Your task to perform on an android device: Add "amazon basics triple a" to the cart on target Image 0: 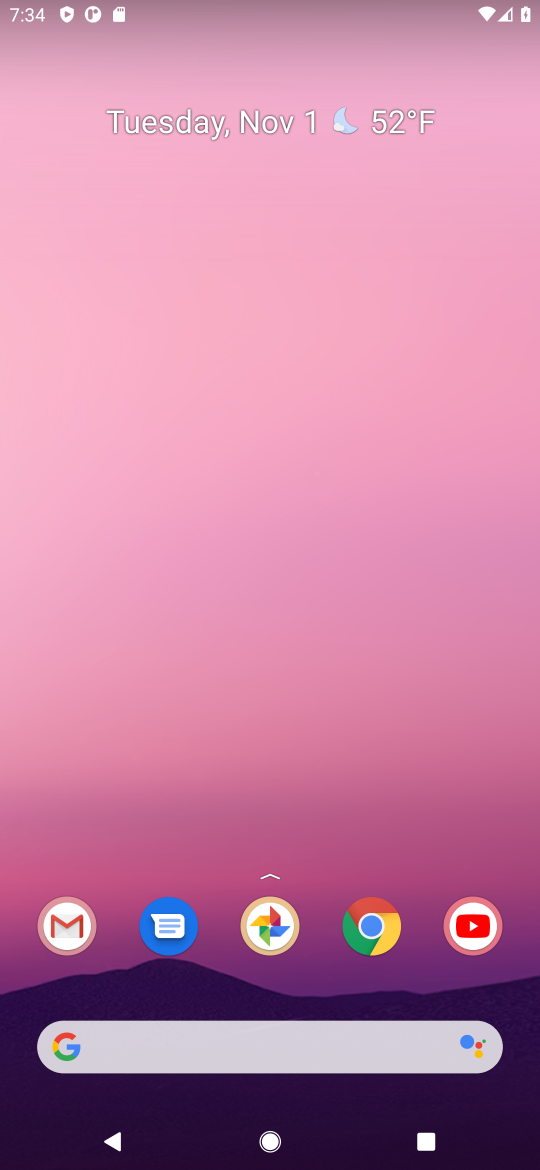
Step 0: click (386, 930)
Your task to perform on an android device: Add "amazon basics triple a" to the cart on target Image 1: 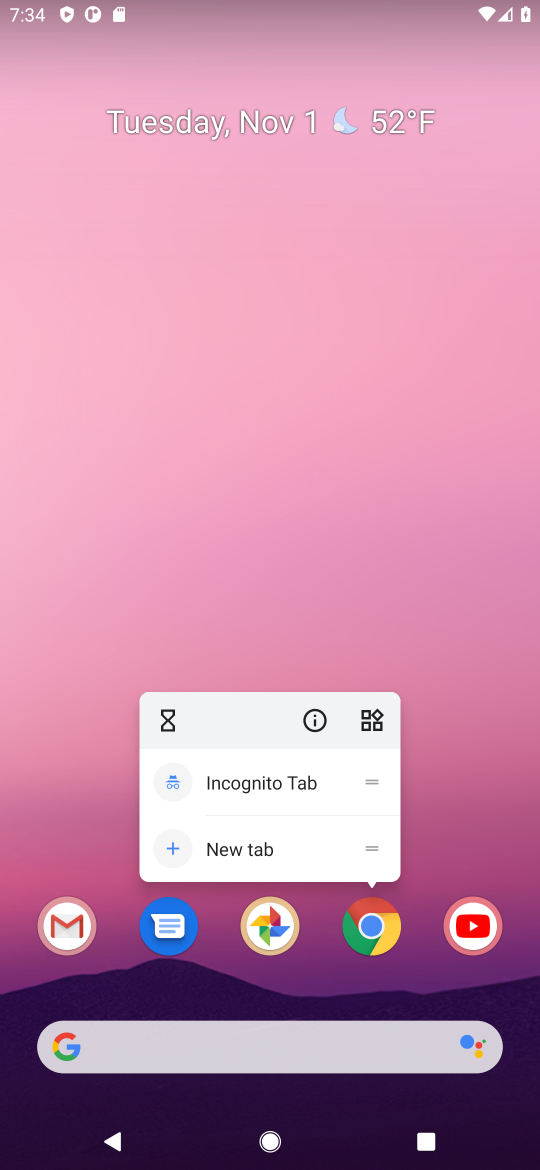
Step 1: press home button
Your task to perform on an android device: Add "amazon basics triple a" to the cart on target Image 2: 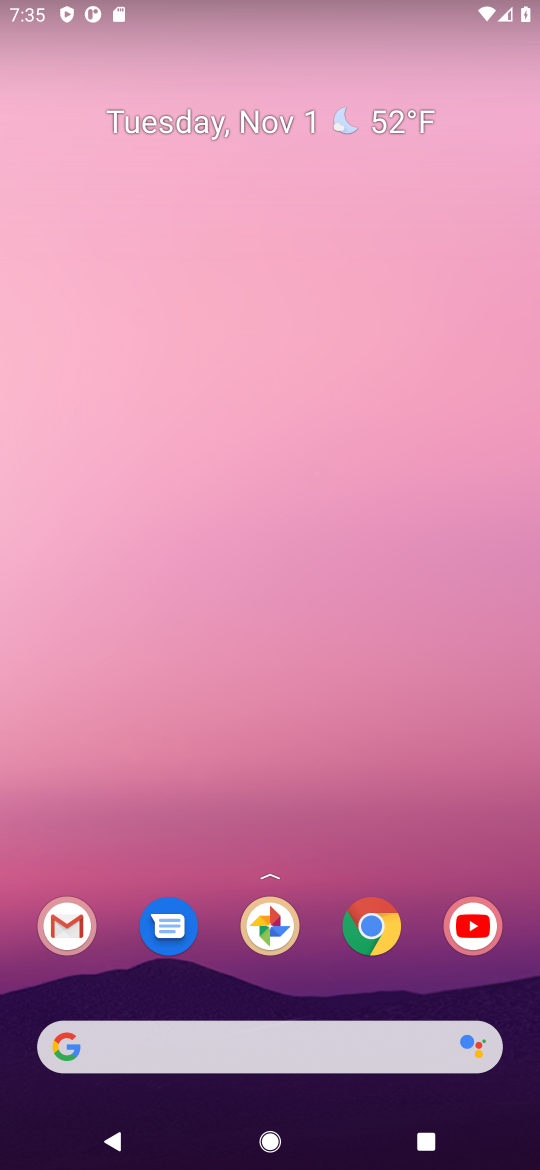
Step 2: press home button
Your task to perform on an android device: Add "amazon basics triple a" to the cart on target Image 3: 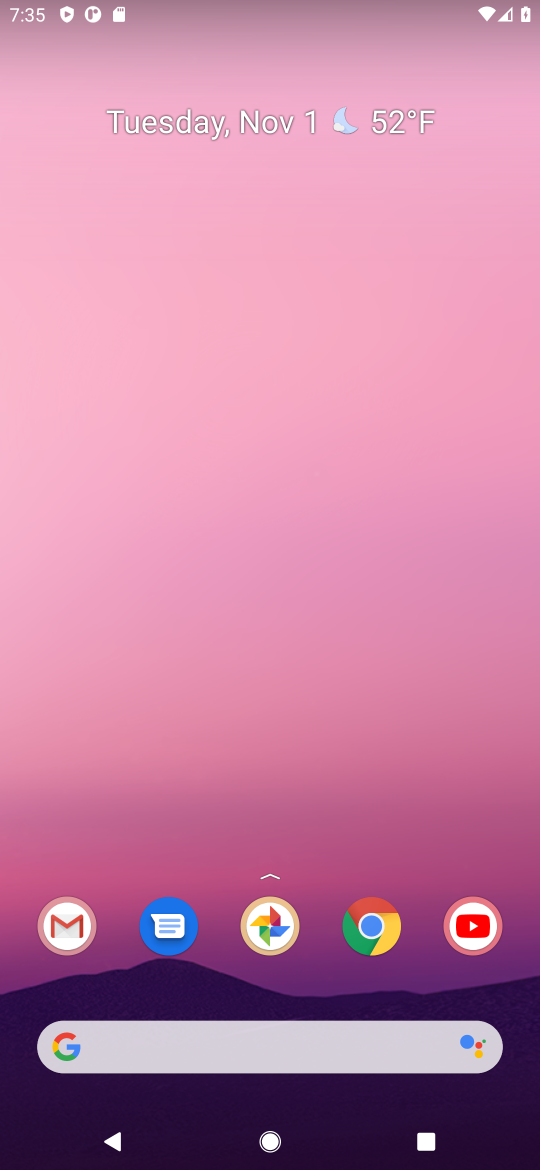
Step 3: press home button
Your task to perform on an android device: Add "amazon basics triple a" to the cart on target Image 4: 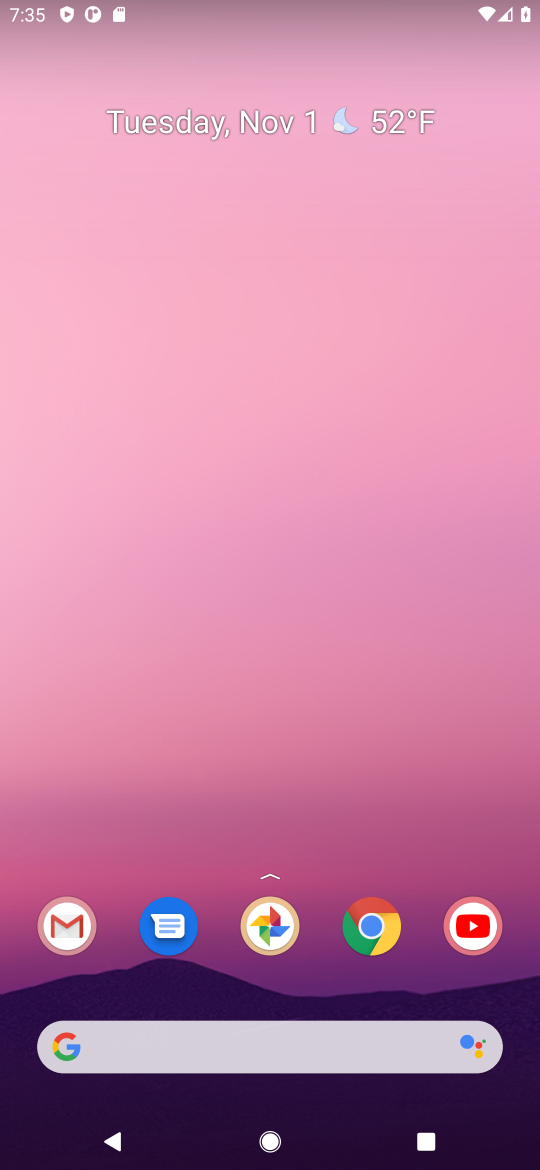
Step 4: click (371, 947)
Your task to perform on an android device: Add "amazon basics triple a" to the cart on target Image 5: 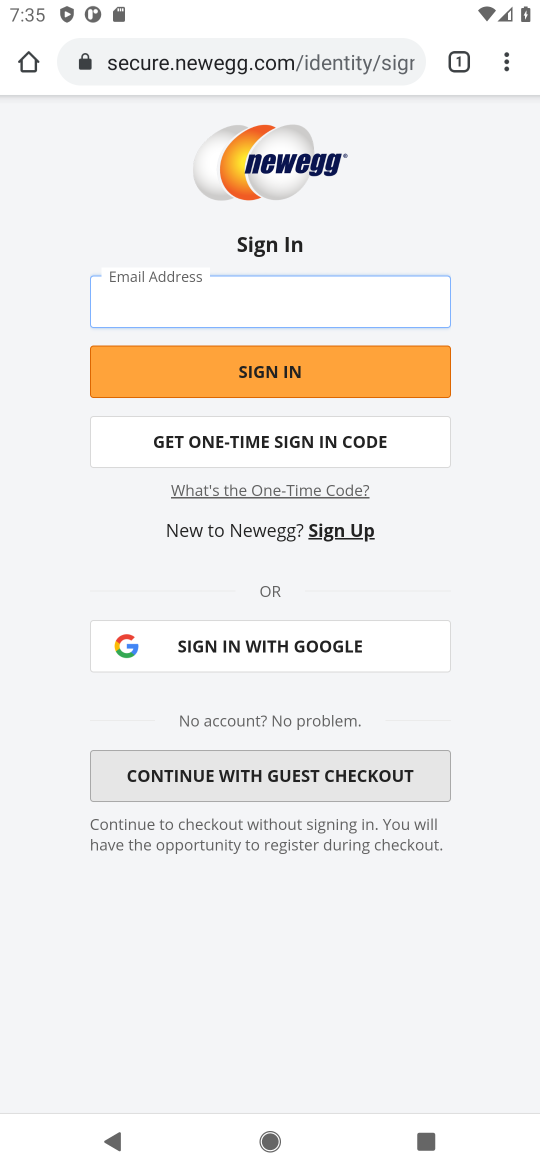
Step 5: press back button
Your task to perform on an android device: Add "amazon basics triple a" to the cart on target Image 6: 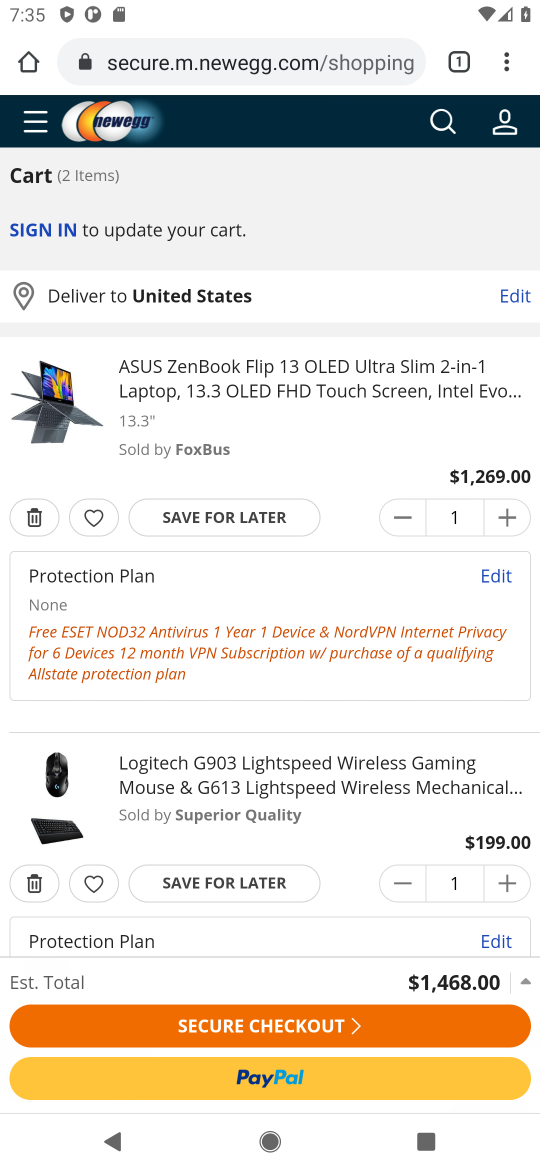
Step 6: click (184, 66)
Your task to perform on an android device: Add "amazon basics triple a" to the cart on target Image 7: 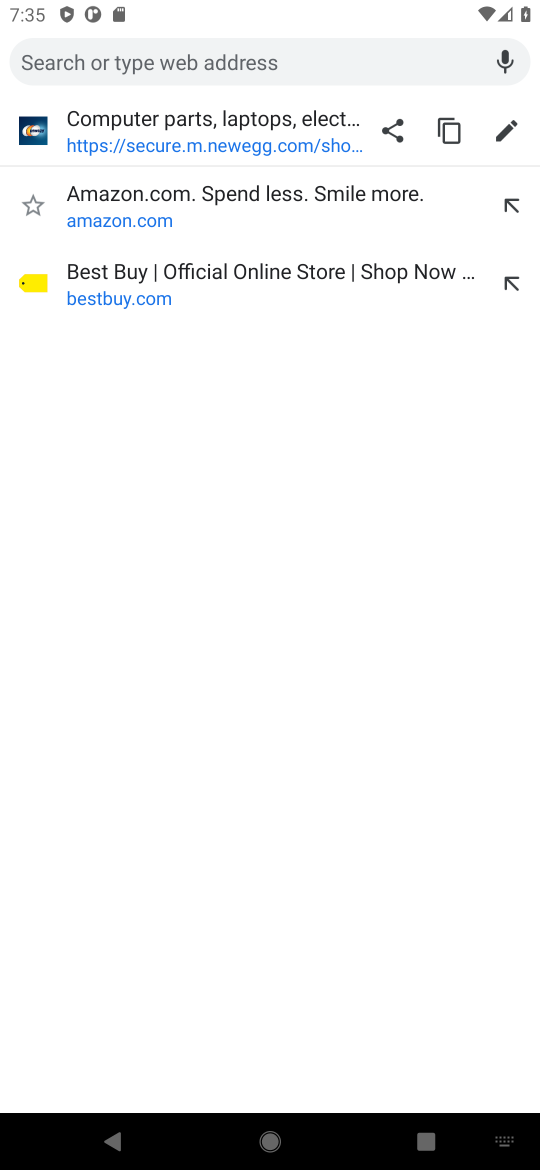
Step 7: type "target"
Your task to perform on an android device: Add "amazon basics triple a" to the cart on target Image 8: 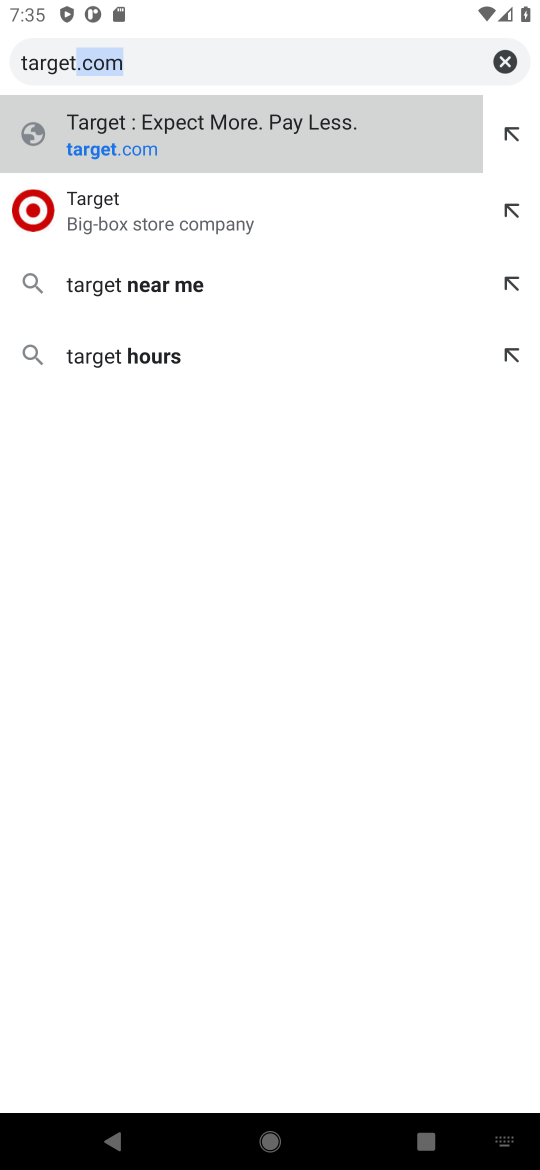
Step 8: click (147, 212)
Your task to perform on an android device: Add "amazon basics triple a" to the cart on target Image 9: 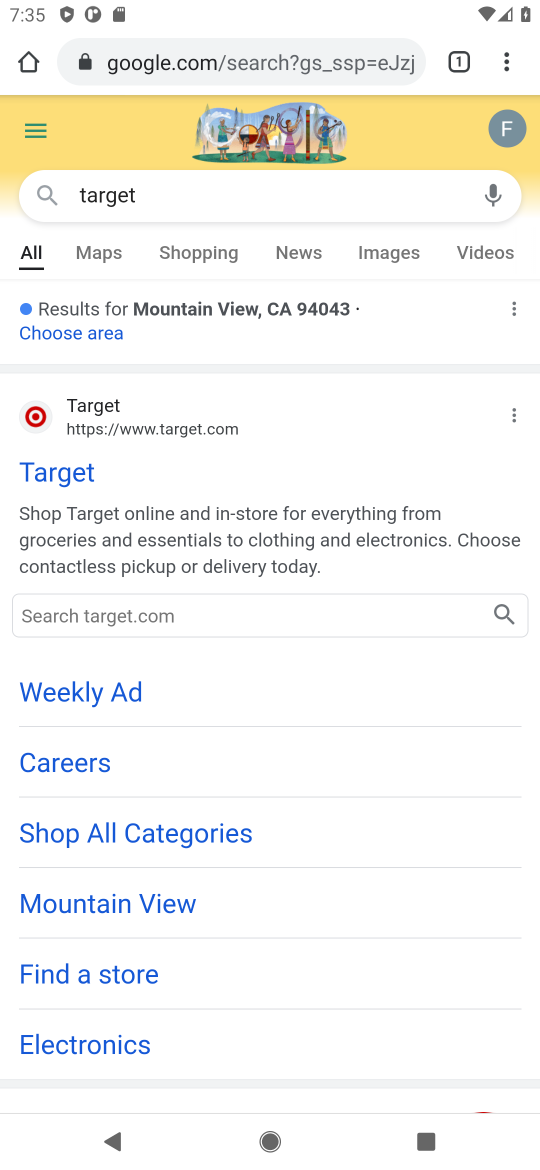
Step 9: click (59, 475)
Your task to perform on an android device: Add "amazon basics triple a" to the cart on target Image 10: 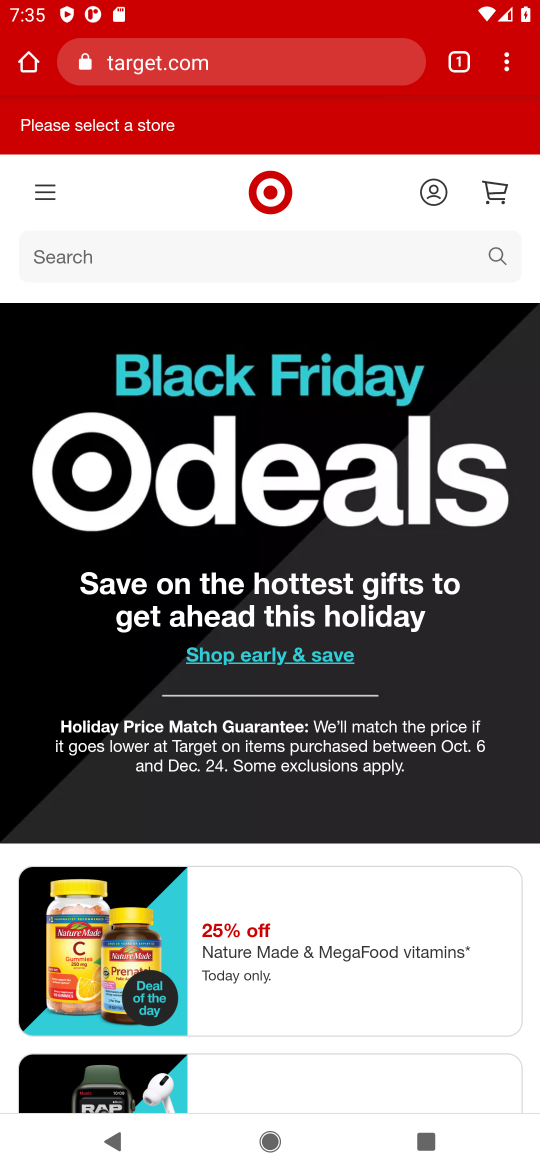
Step 10: click (495, 255)
Your task to perform on an android device: Add "amazon basics triple a" to the cart on target Image 11: 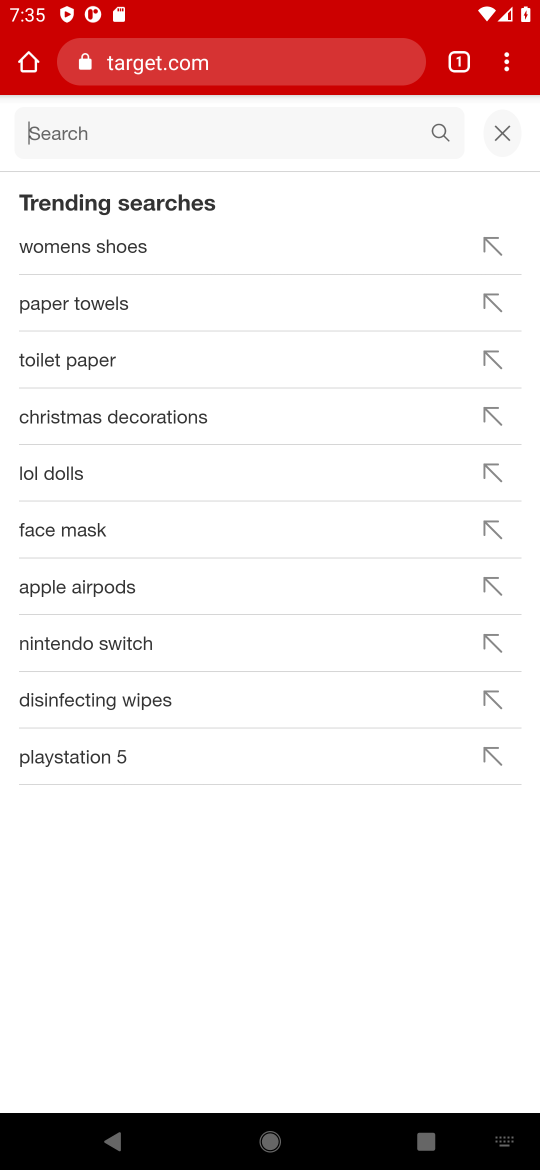
Step 11: type "amazon basics triple"
Your task to perform on an android device: Add "amazon basics triple a" to the cart on target Image 12: 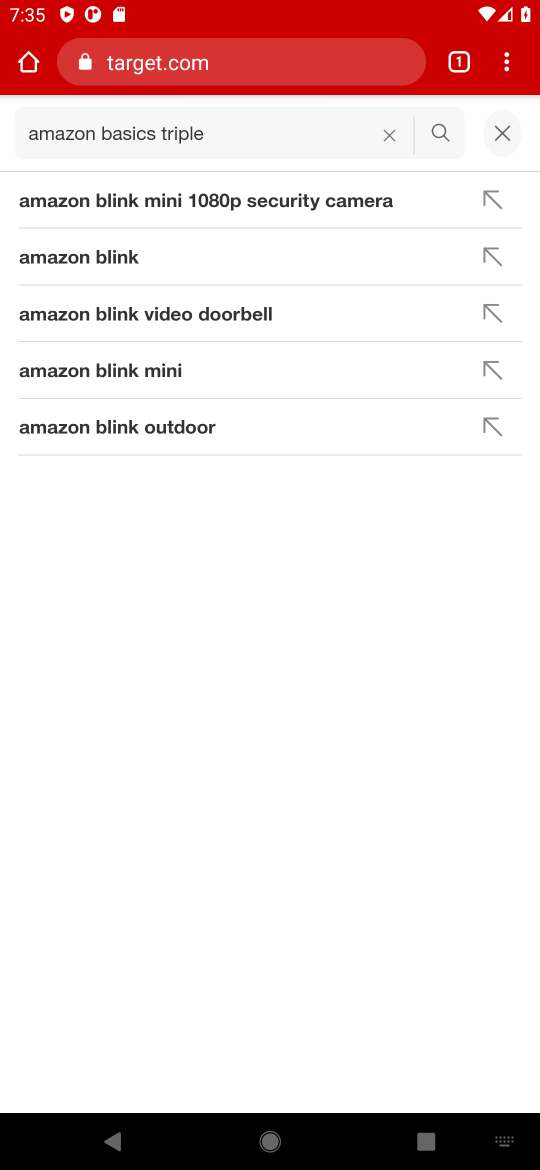
Step 12: click (57, 252)
Your task to perform on an android device: Add "amazon basics triple a" to the cart on target Image 13: 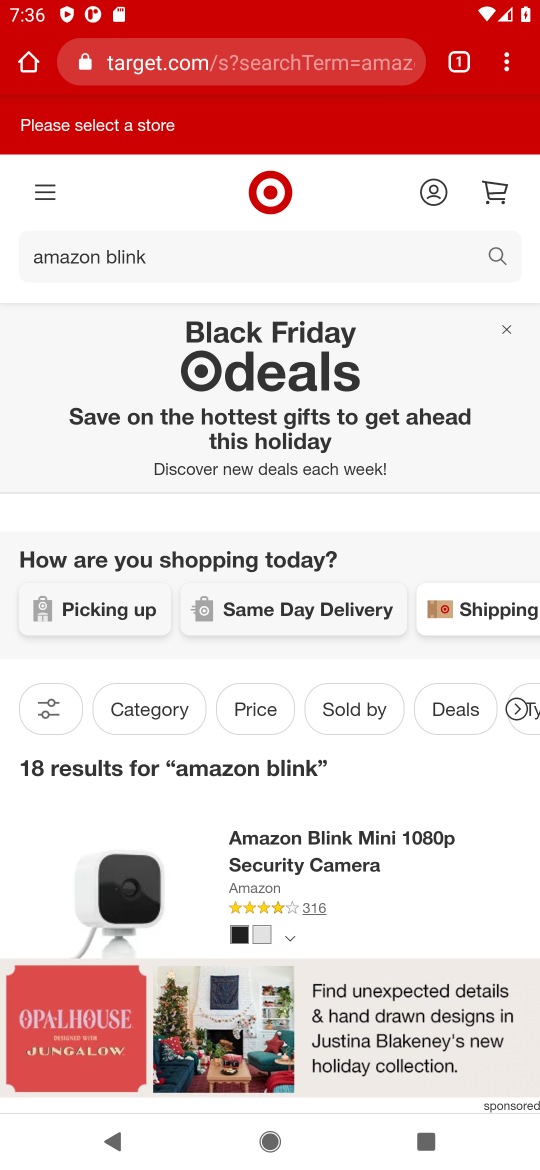
Step 13: drag from (176, 936) to (95, 557)
Your task to perform on an android device: Add "amazon basics triple a" to the cart on target Image 14: 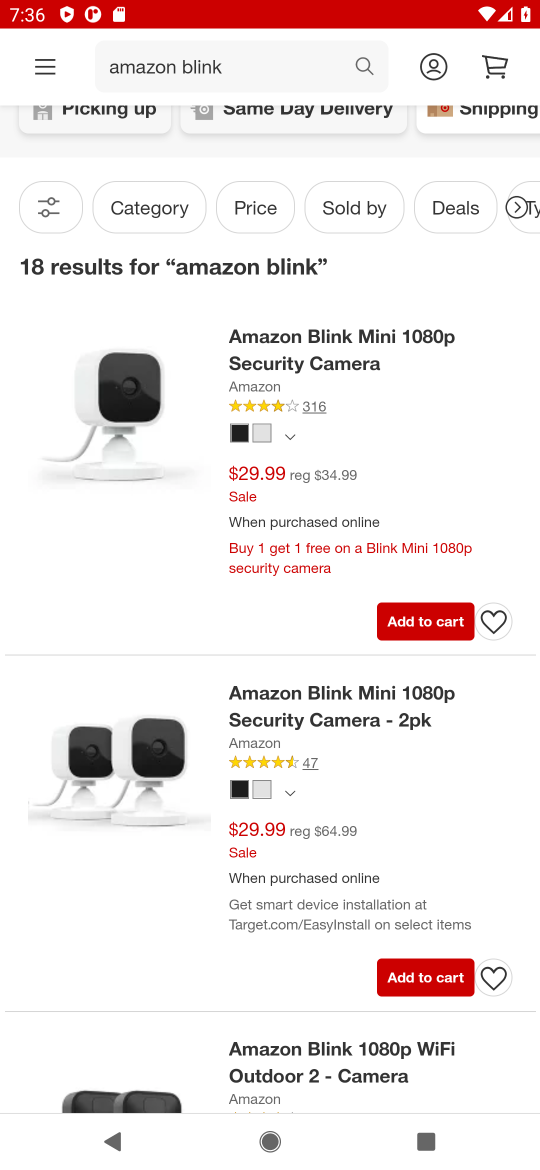
Step 14: drag from (268, 945) to (170, 367)
Your task to perform on an android device: Add "amazon basics triple a" to the cart on target Image 15: 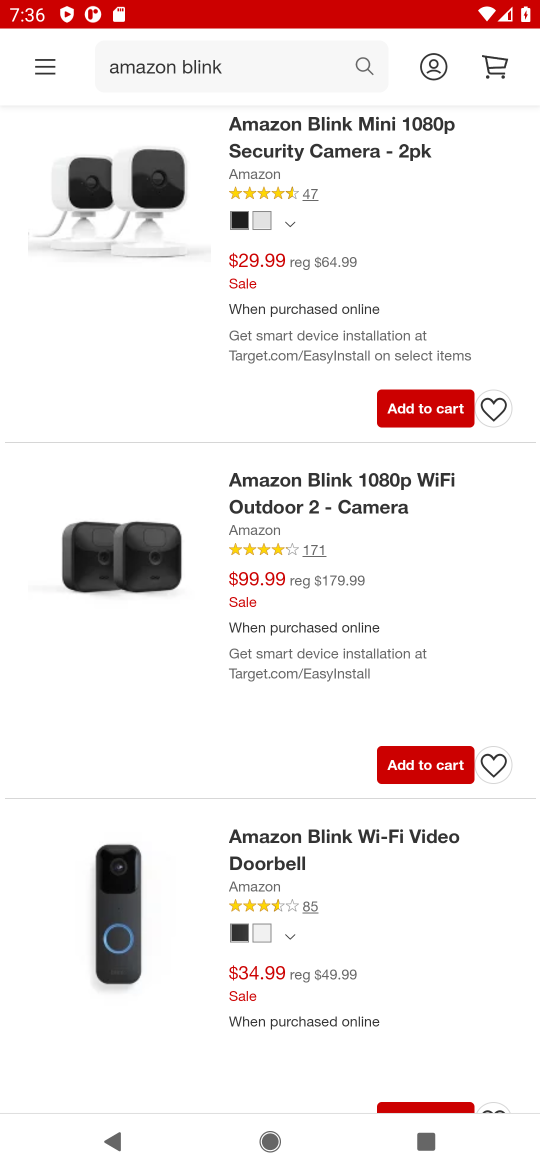
Step 15: click (409, 775)
Your task to perform on an android device: Add "amazon basics triple a" to the cart on target Image 16: 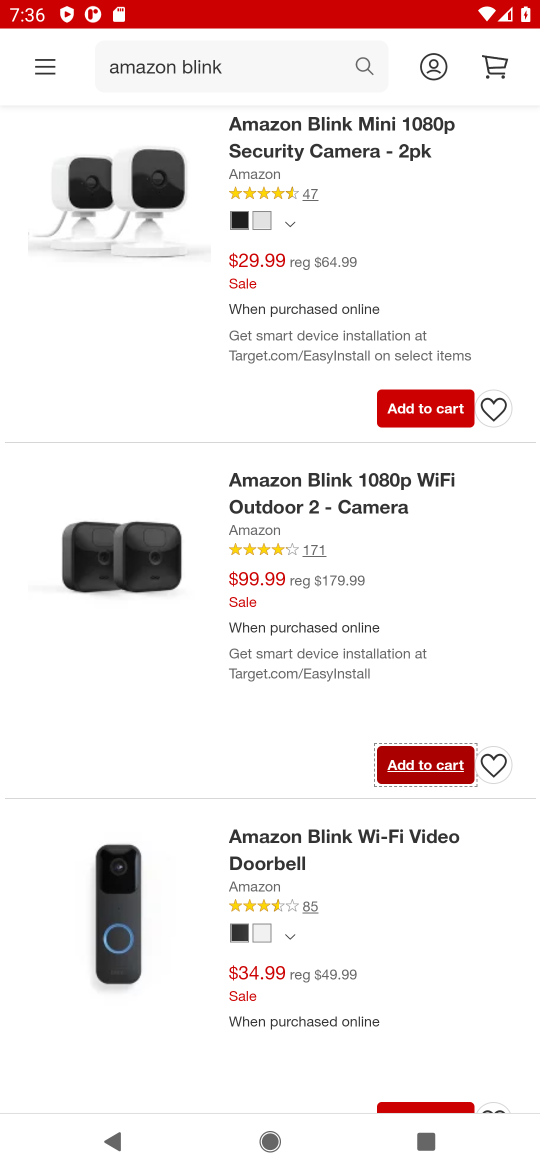
Step 16: click (403, 770)
Your task to perform on an android device: Add "amazon basics triple a" to the cart on target Image 17: 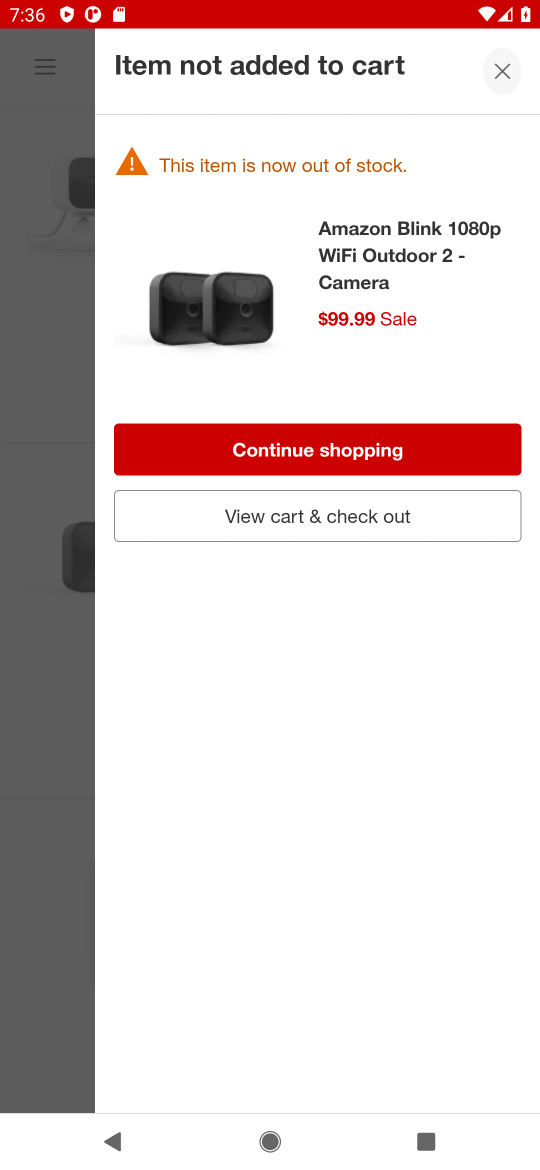
Step 17: click (248, 458)
Your task to perform on an android device: Add "amazon basics triple a" to the cart on target Image 18: 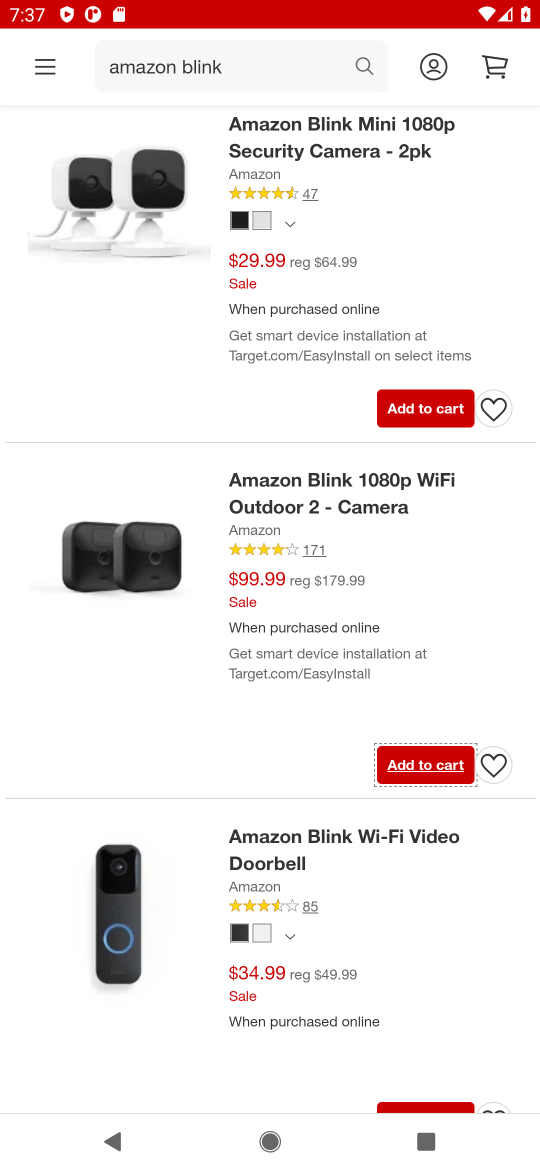
Step 18: task complete